Your task to perform on an android device: open a bookmark in the chrome app Image 0: 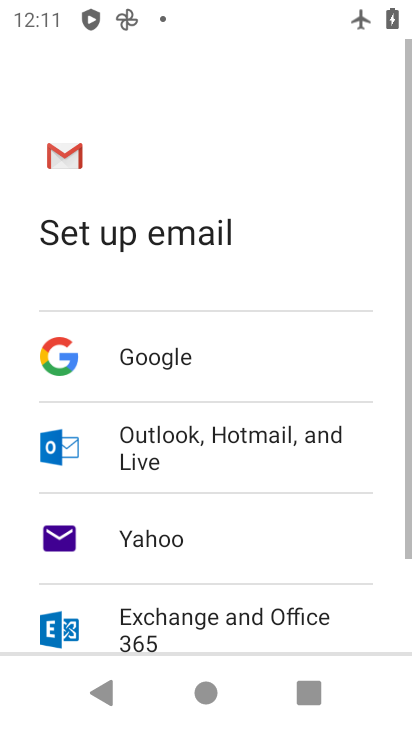
Step 0: press home button
Your task to perform on an android device: open a bookmark in the chrome app Image 1: 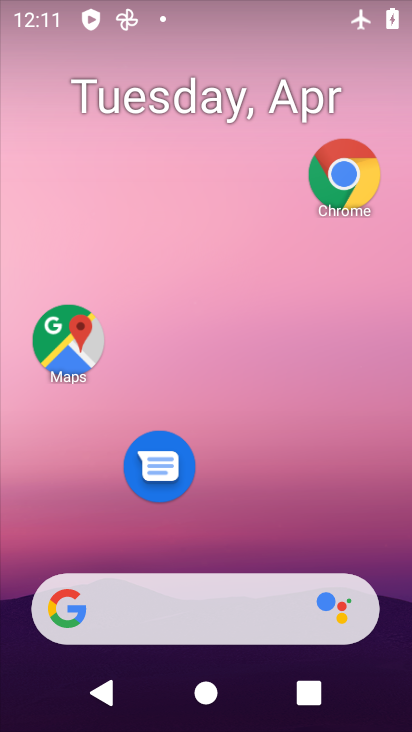
Step 1: click (354, 174)
Your task to perform on an android device: open a bookmark in the chrome app Image 2: 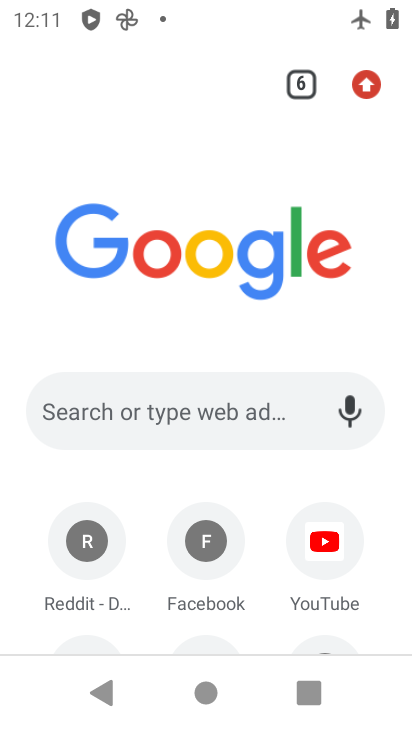
Step 2: click (363, 109)
Your task to perform on an android device: open a bookmark in the chrome app Image 3: 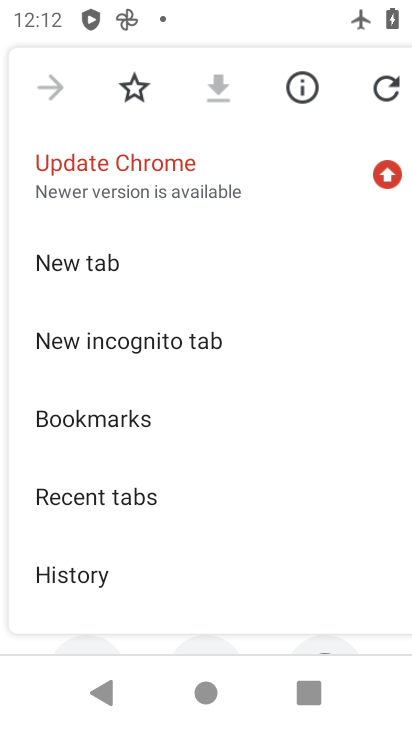
Step 3: click (175, 408)
Your task to perform on an android device: open a bookmark in the chrome app Image 4: 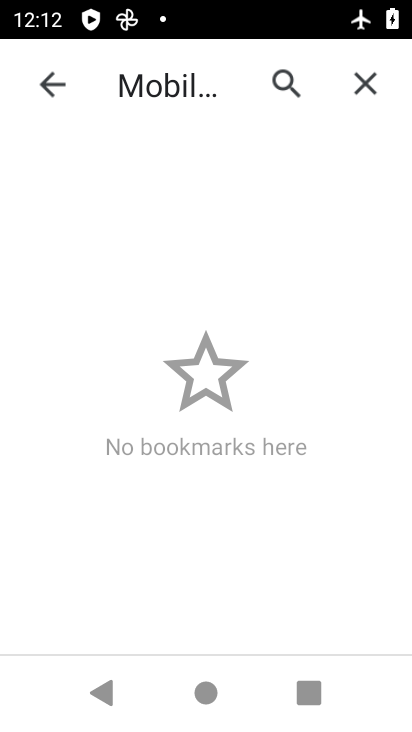
Step 4: task complete